Your task to perform on an android device: Go to ESPN.com Image 0: 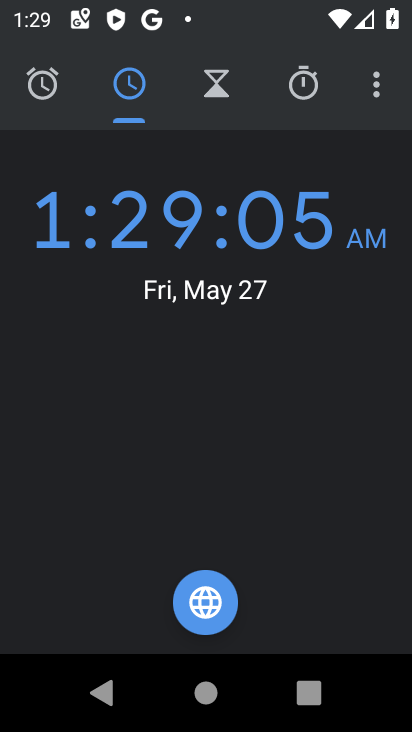
Step 0: press home button
Your task to perform on an android device: Go to ESPN.com Image 1: 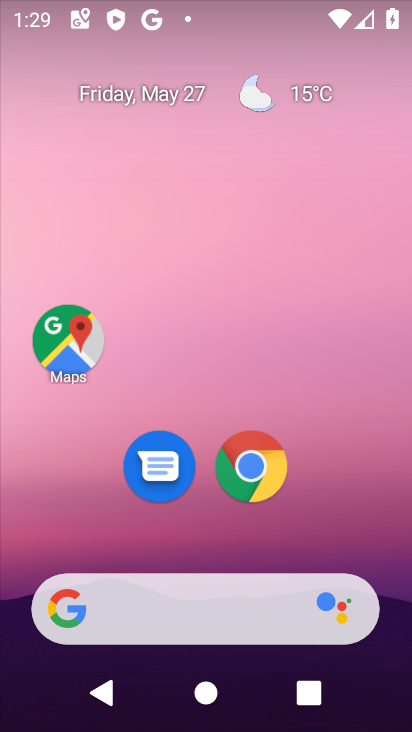
Step 1: click (264, 484)
Your task to perform on an android device: Go to ESPN.com Image 2: 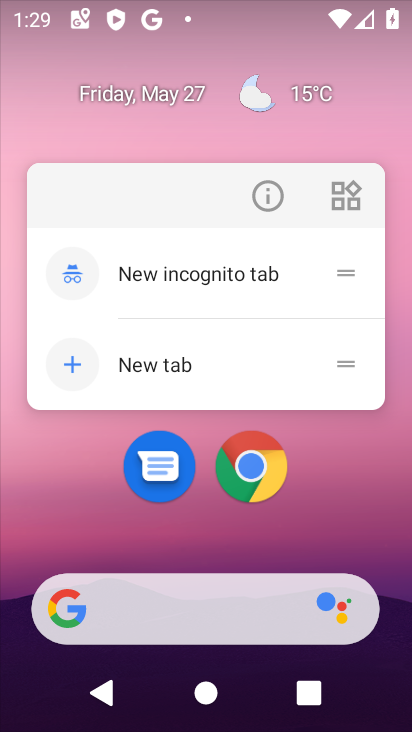
Step 2: click (263, 472)
Your task to perform on an android device: Go to ESPN.com Image 3: 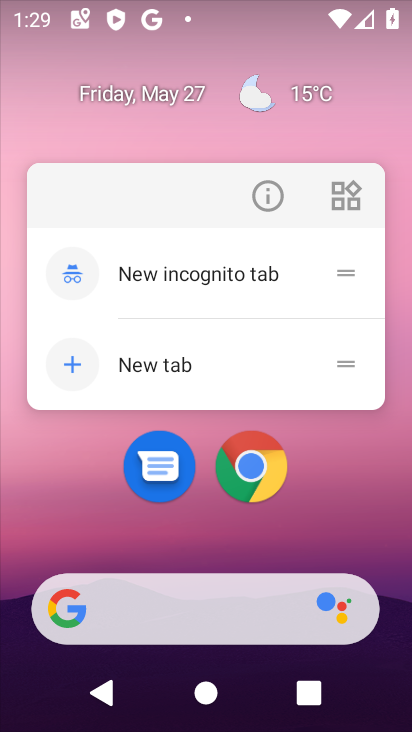
Step 3: click (265, 470)
Your task to perform on an android device: Go to ESPN.com Image 4: 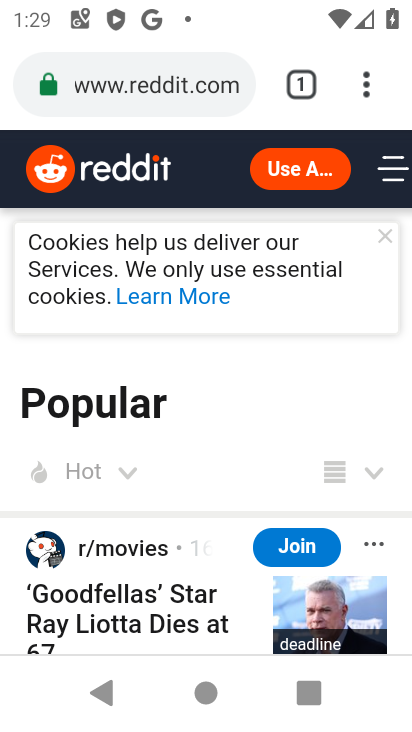
Step 4: drag from (362, 92) to (276, 241)
Your task to perform on an android device: Go to ESPN.com Image 5: 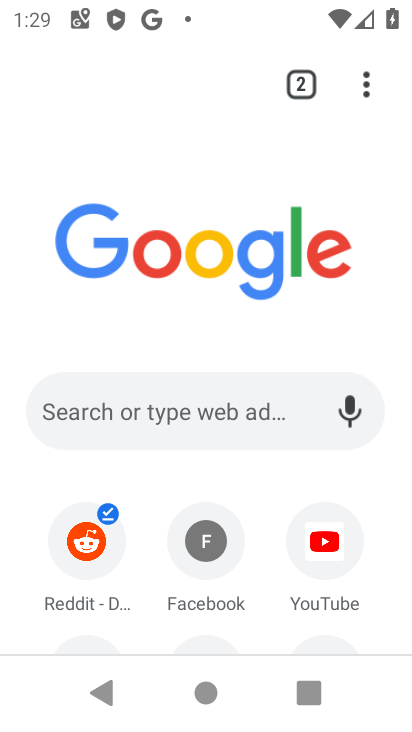
Step 5: click (205, 401)
Your task to perform on an android device: Go to ESPN.com Image 6: 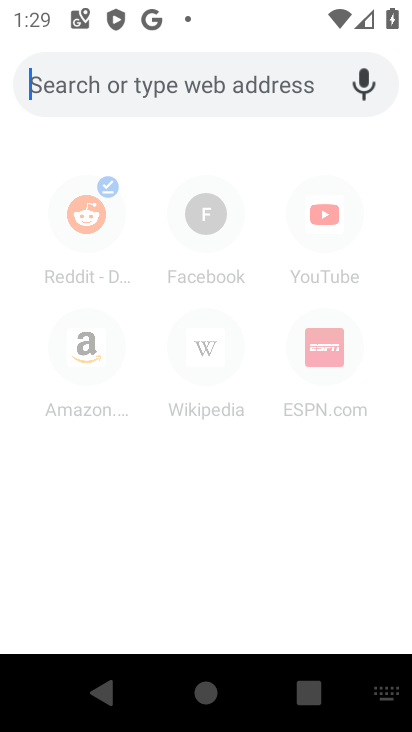
Step 6: type "ESPN.com"
Your task to perform on an android device: Go to ESPN.com Image 7: 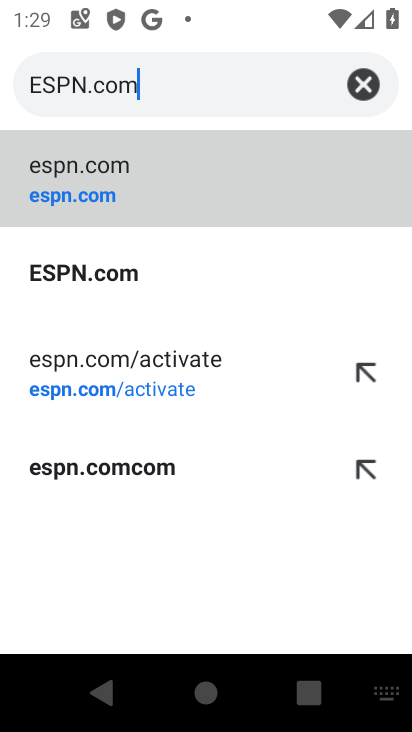
Step 7: click (160, 198)
Your task to perform on an android device: Go to ESPN.com Image 8: 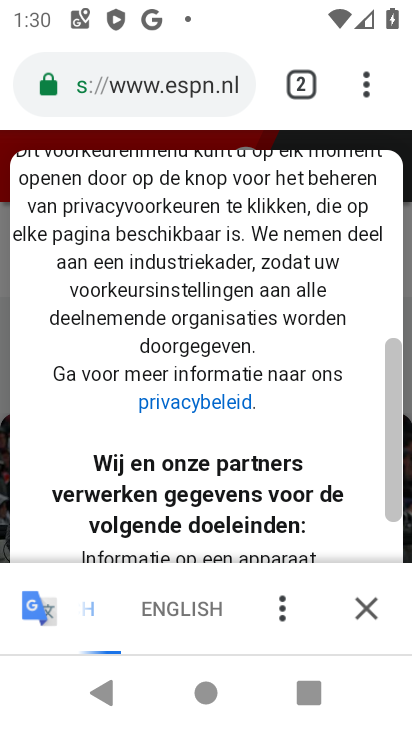
Step 8: drag from (115, 511) to (279, 131)
Your task to perform on an android device: Go to ESPN.com Image 9: 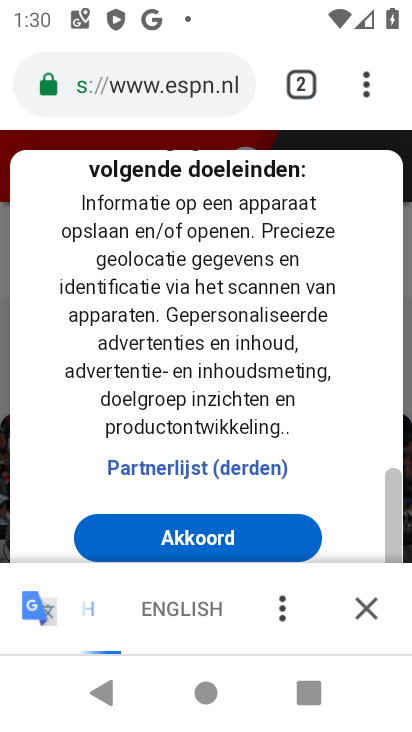
Step 9: drag from (232, 397) to (291, 245)
Your task to perform on an android device: Go to ESPN.com Image 10: 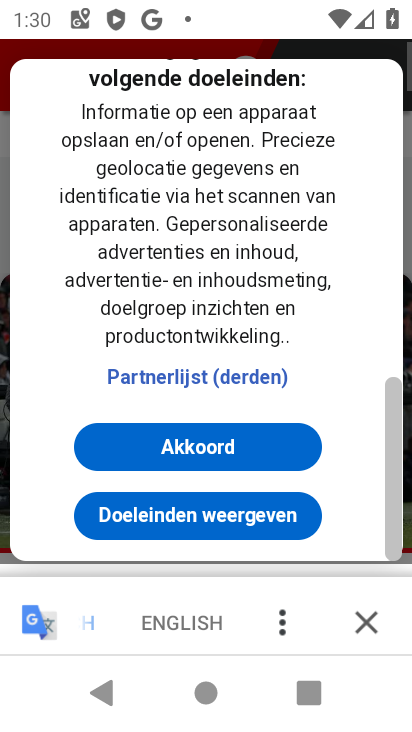
Step 10: click (180, 642)
Your task to perform on an android device: Go to ESPN.com Image 11: 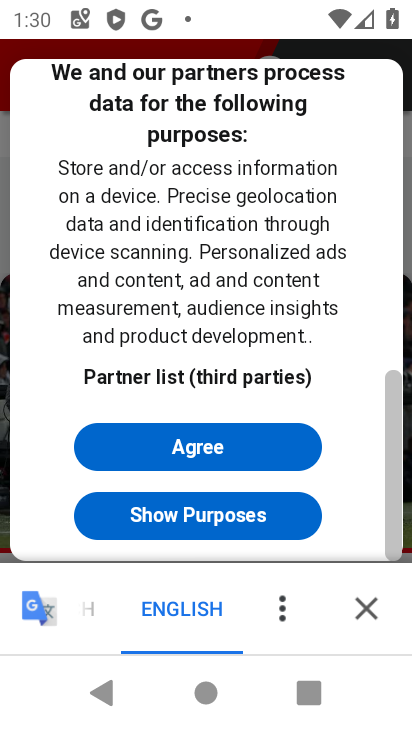
Step 11: click (264, 444)
Your task to perform on an android device: Go to ESPN.com Image 12: 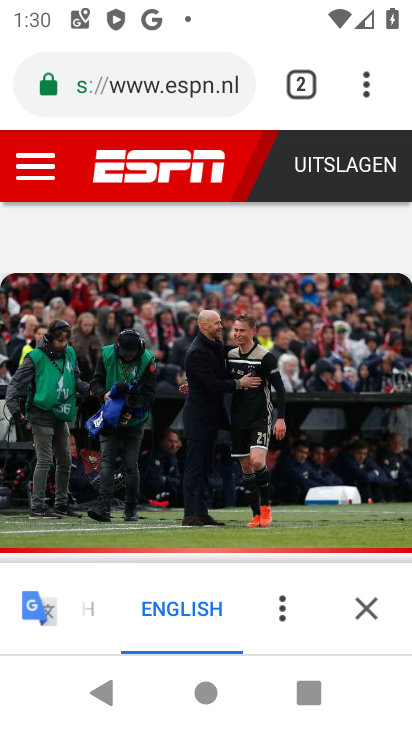
Step 12: click (362, 614)
Your task to perform on an android device: Go to ESPN.com Image 13: 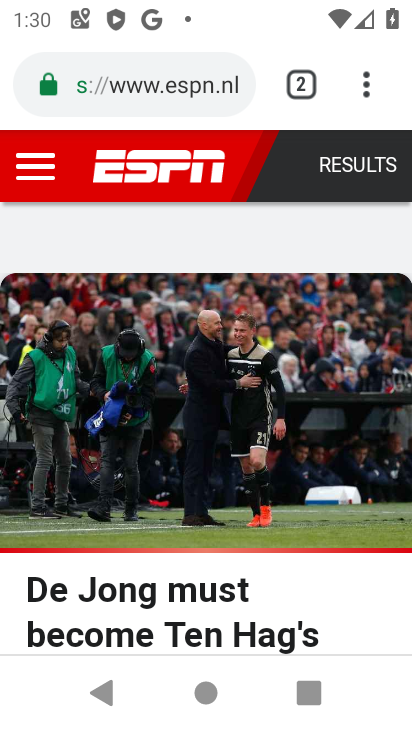
Step 13: task complete